Your task to perform on an android device: turn off smart reply in the gmail app Image 0: 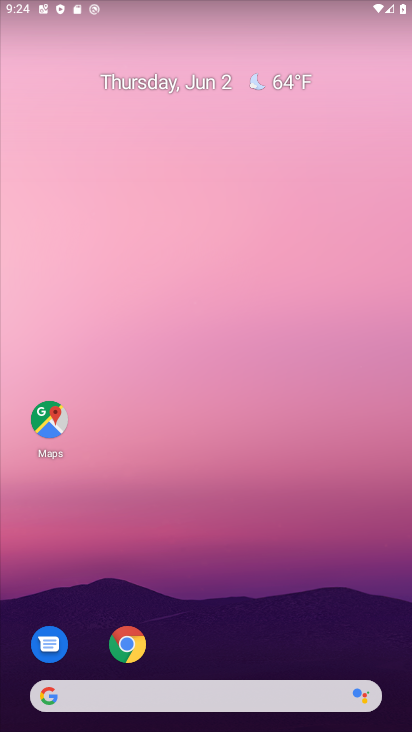
Step 0: press home button
Your task to perform on an android device: turn off smart reply in the gmail app Image 1: 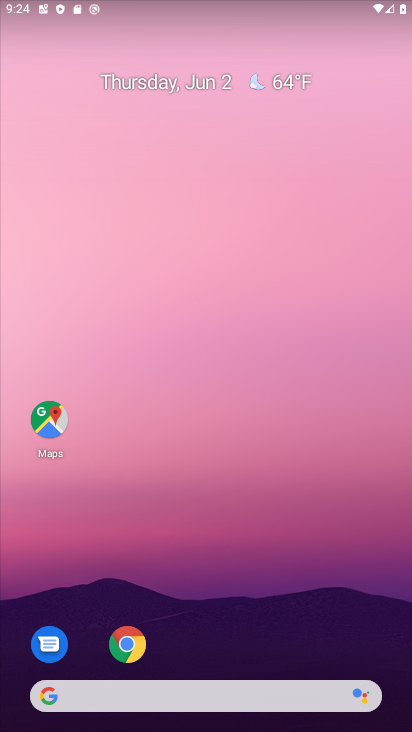
Step 1: drag from (352, 594) to (361, 444)
Your task to perform on an android device: turn off smart reply in the gmail app Image 2: 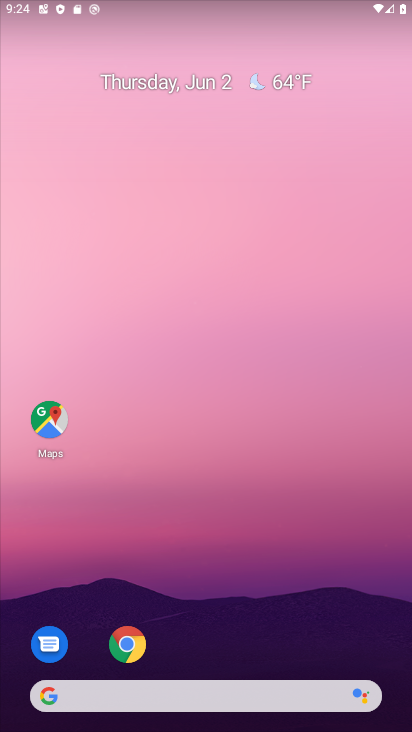
Step 2: drag from (347, 491) to (358, 262)
Your task to perform on an android device: turn off smart reply in the gmail app Image 3: 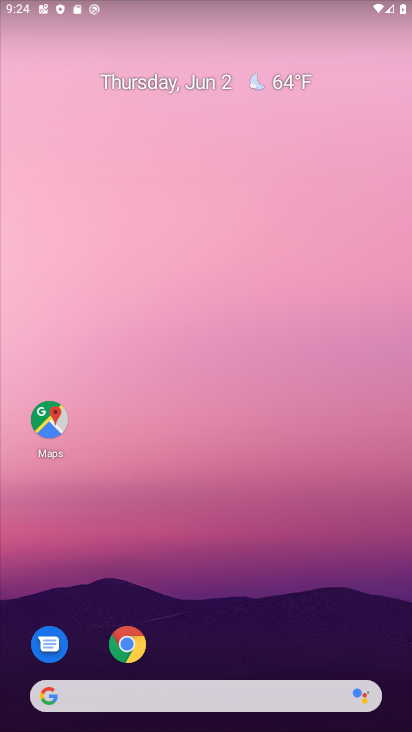
Step 3: drag from (357, 261) to (287, 20)
Your task to perform on an android device: turn off smart reply in the gmail app Image 4: 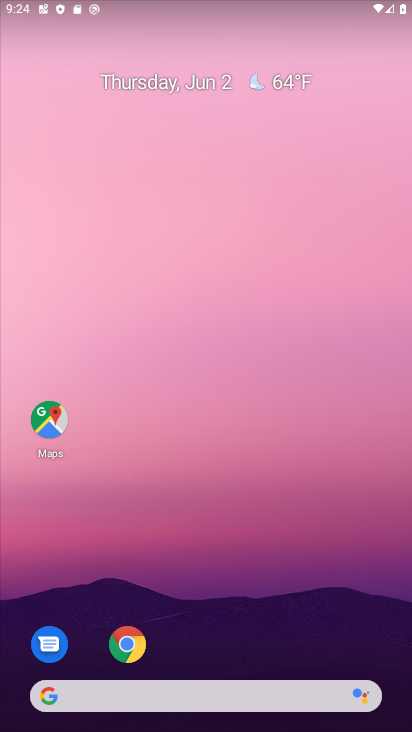
Step 4: drag from (273, 488) to (319, 29)
Your task to perform on an android device: turn off smart reply in the gmail app Image 5: 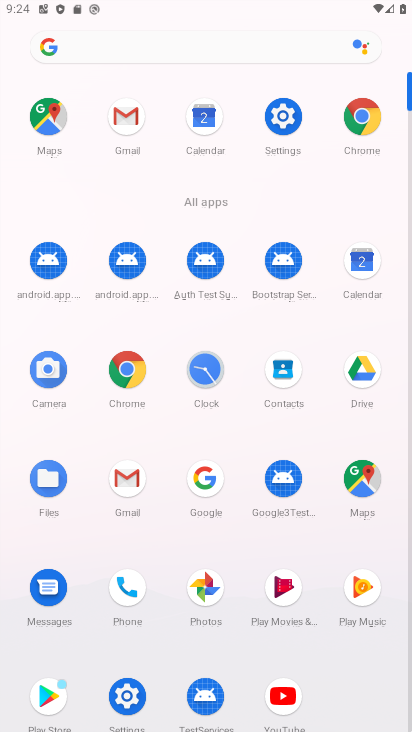
Step 5: click (121, 111)
Your task to perform on an android device: turn off smart reply in the gmail app Image 6: 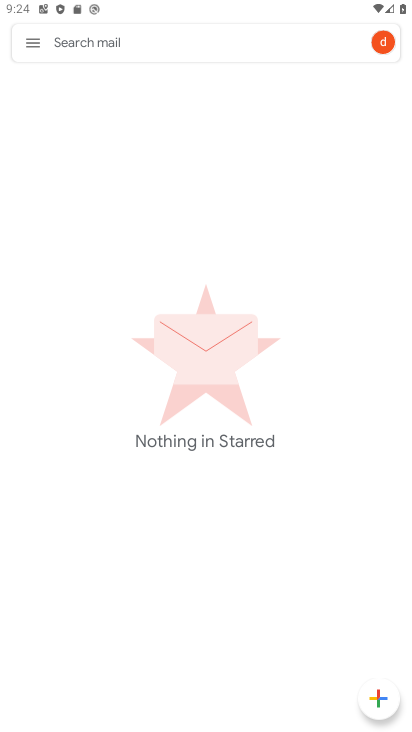
Step 6: click (39, 40)
Your task to perform on an android device: turn off smart reply in the gmail app Image 7: 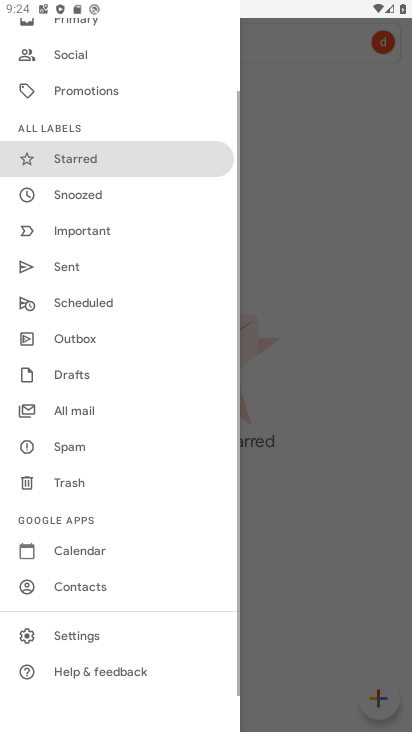
Step 7: click (82, 644)
Your task to perform on an android device: turn off smart reply in the gmail app Image 8: 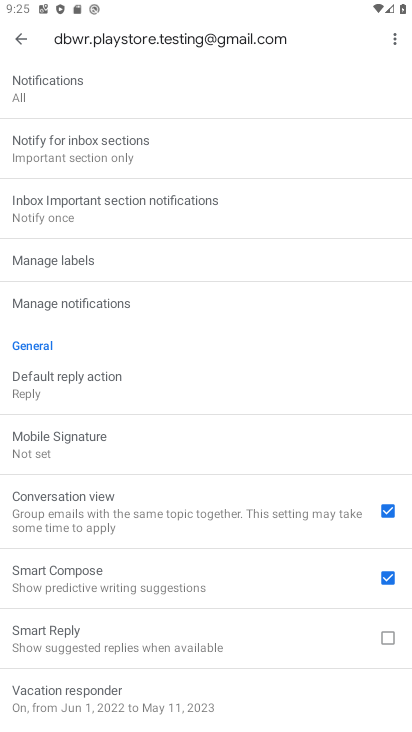
Step 8: task complete